Your task to perform on an android device: Go to privacy settings Image 0: 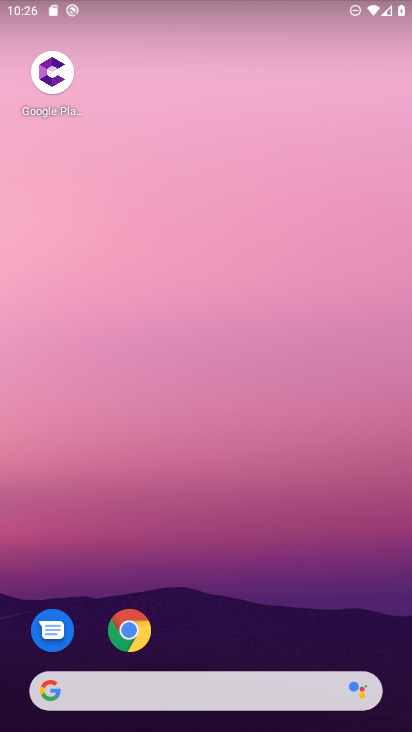
Step 0: drag from (179, 688) to (209, 258)
Your task to perform on an android device: Go to privacy settings Image 1: 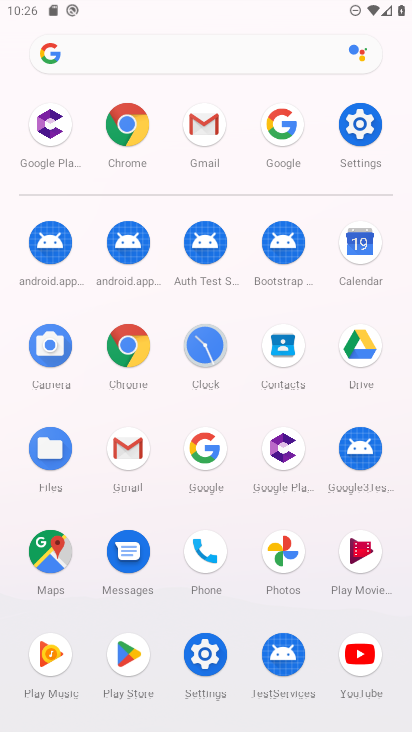
Step 1: click (362, 124)
Your task to perform on an android device: Go to privacy settings Image 2: 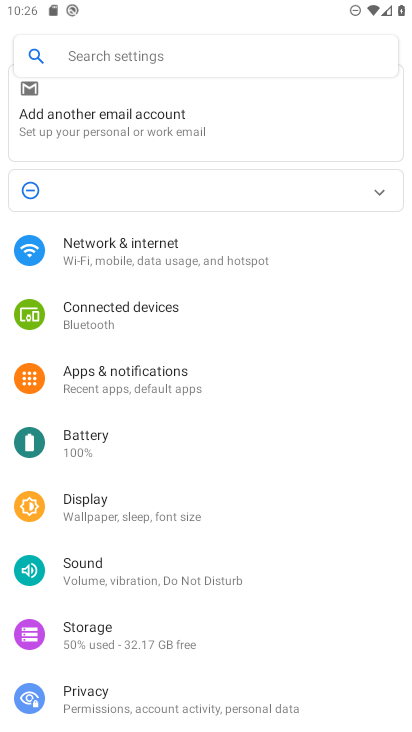
Step 2: drag from (141, 546) to (191, 462)
Your task to perform on an android device: Go to privacy settings Image 3: 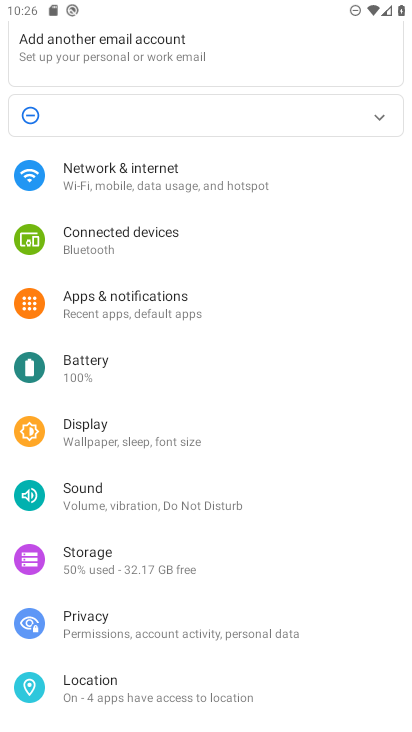
Step 3: click (132, 629)
Your task to perform on an android device: Go to privacy settings Image 4: 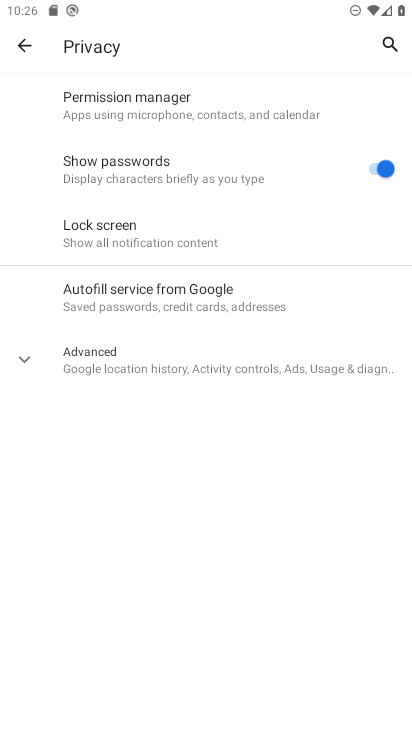
Step 4: task complete